Your task to perform on an android device: Clear all items from cart on target.com. Add "alienware area 51" to the cart on target.com Image 0: 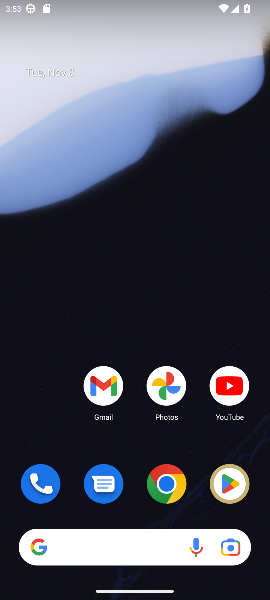
Step 0: click (151, 496)
Your task to perform on an android device: Clear all items from cart on target.com. Add "alienware area 51" to the cart on target.com Image 1: 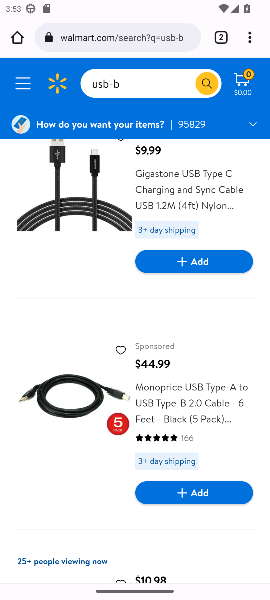
Step 1: click (95, 31)
Your task to perform on an android device: Clear all items from cart on target.com. Add "alienware area 51" to the cart on target.com Image 2: 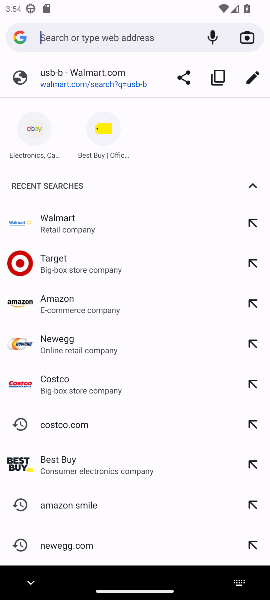
Step 2: click (100, 270)
Your task to perform on an android device: Clear all items from cart on target.com. Add "alienware area 51" to the cart on target.com Image 3: 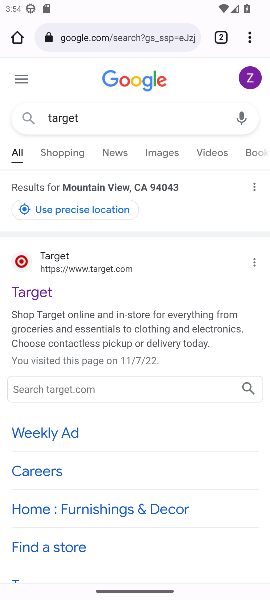
Step 3: click (100, 270)
Your task to perform on an android device: Clear all items from cart on target.com. Add "alienware area 51" to the cart on target.com Image 4: 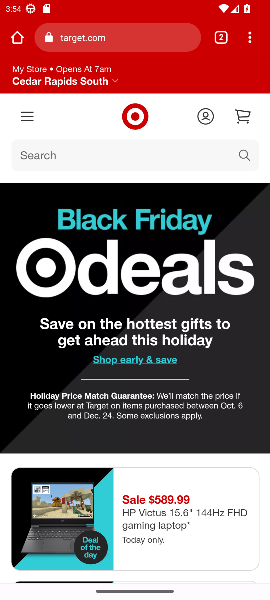
Step 4: click (242, 121)
Your task to perform on an android device: Clear all items from cart on target.com. Add "alienware area 51" to the cart on target.com Image 5: 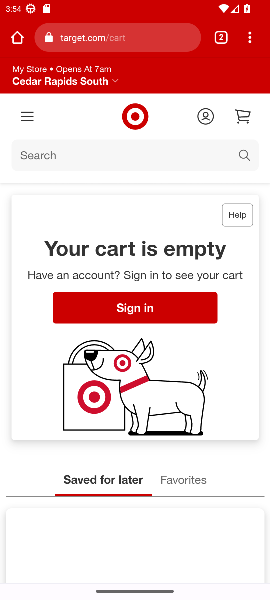
Step 5: click (77, 151)
Your task to perform on an android device: Clear all items from cart on target.com. Add "alienware area 51" to the cart on target.com Image 6: 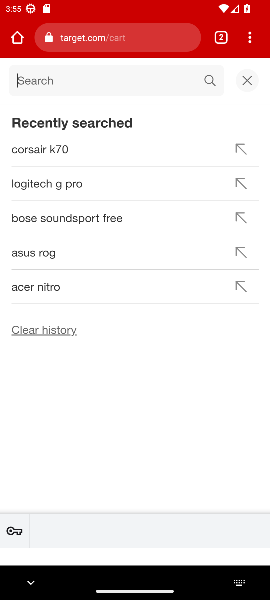
Step 6: type "alienware area 51"
Your task to perform on an android device: Clear all items from cart on target.com. Add "alienware area 51" to the cart on target.com Image 7: 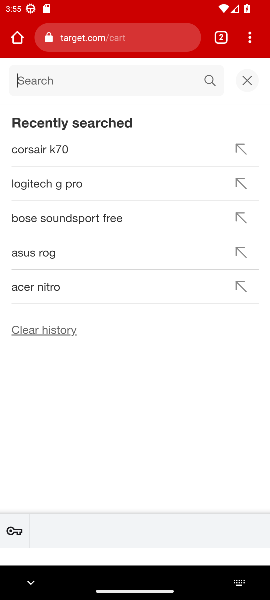
Step 7: type ""
Your task to perform on an android device: Clear all items from cart on target.com. Add "alienware area 51" to the cart on target.com Image 8: 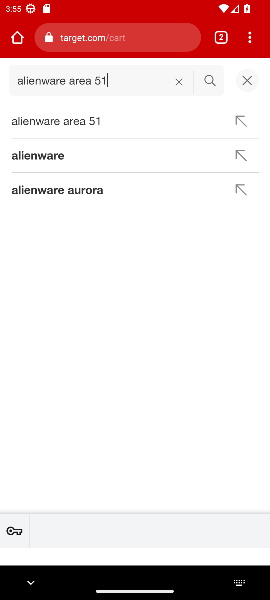
Step 8: click (108, 126)
Your task to perform on an android device: Clear all items from cart on target.com. Add "alienware area 51" to the cart on target.com Image 9: 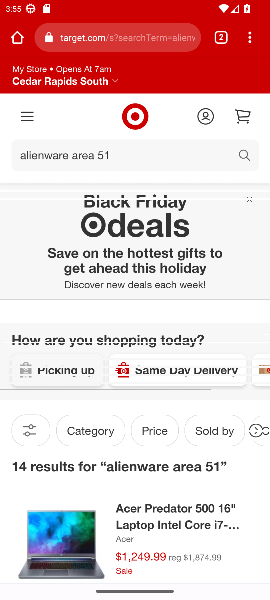
Step 9: task complete